Your task to perform on an android device: turn on improve location accuracy Image 0: 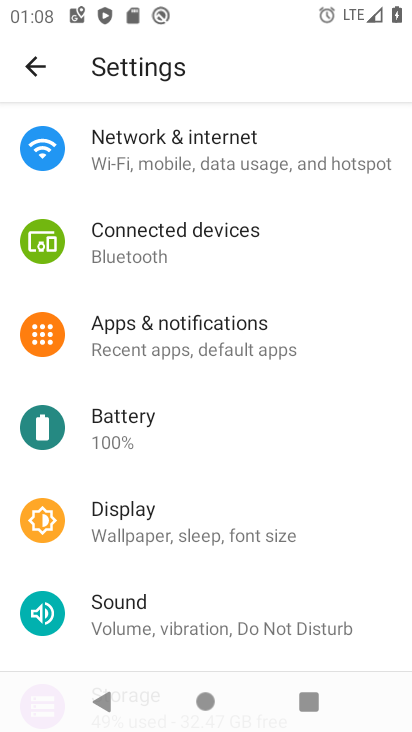
Step 0: drag from (280, 552) to (286, 213)
Your task to perform on an android device: turn on improve location accuracy Image 1: 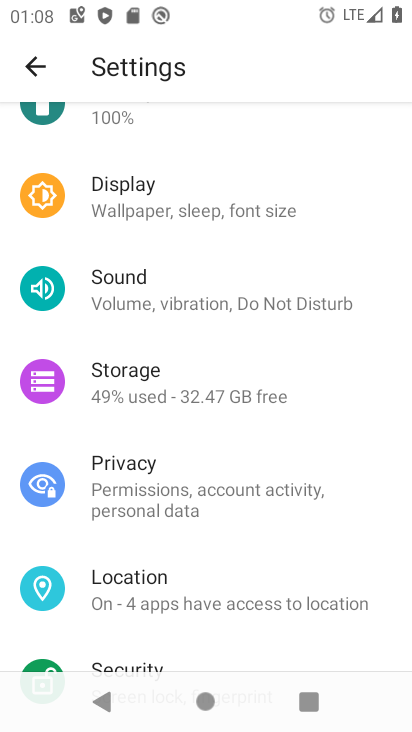
Step 1: click (200, 576)
Your task to perform on an android device: turn on improve location accuracy Image 2: 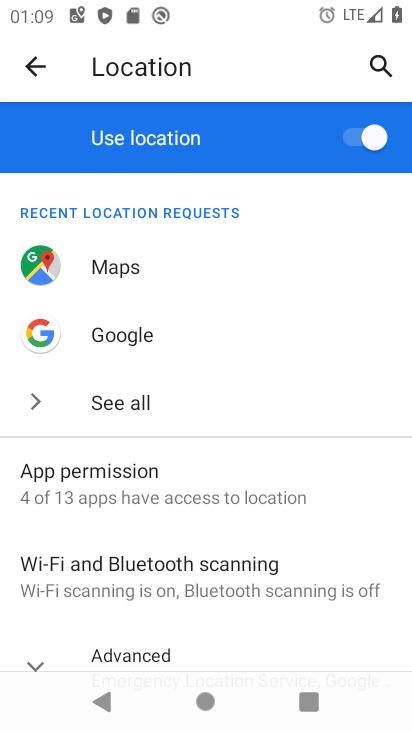
Step 2: drag from (258, 607) to (251, 349)
Your task to perform on an android device: turn on improve location accuracy Image 3: 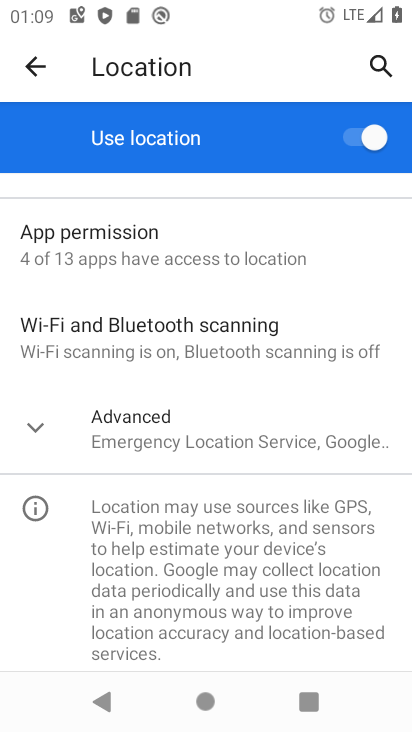
Step 3: click (32, 423)
Your task to perform on an android device: turn on improve location accuracy Image 4: 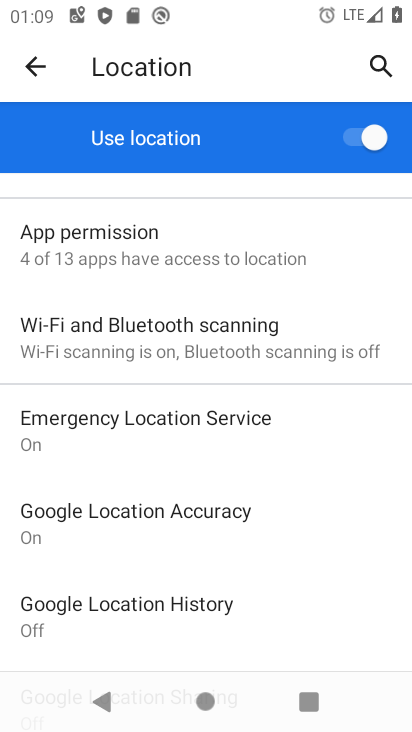
Step 4: click (177, 529)
Your task to perform on an android device: turn on improve location accuracy Image 5: 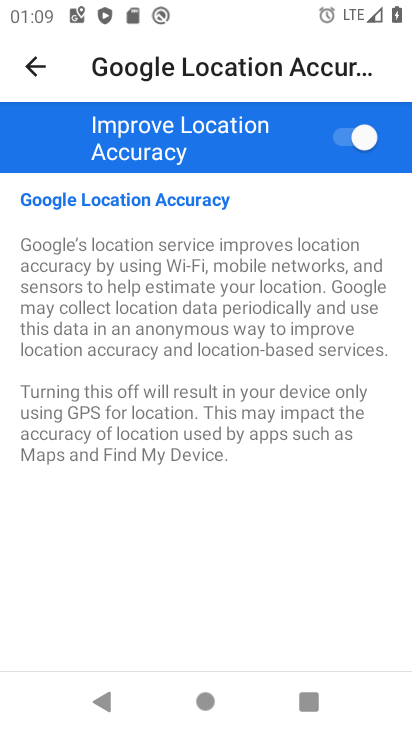
Step 5: task complete